Your task to perform on an android device: open app "The Home Depot" (install if not already installed) Image 0: 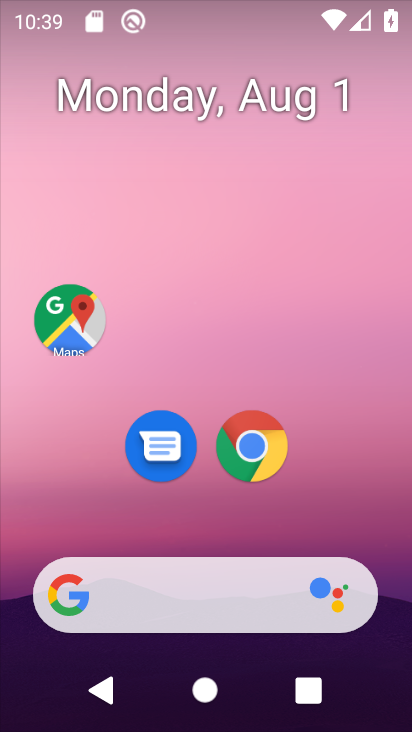
Step 0: drag from (240, 538) to (183, 121)
Your task to perform on an android device: open app "The Home Depot" (install if not already installed) Image 1: 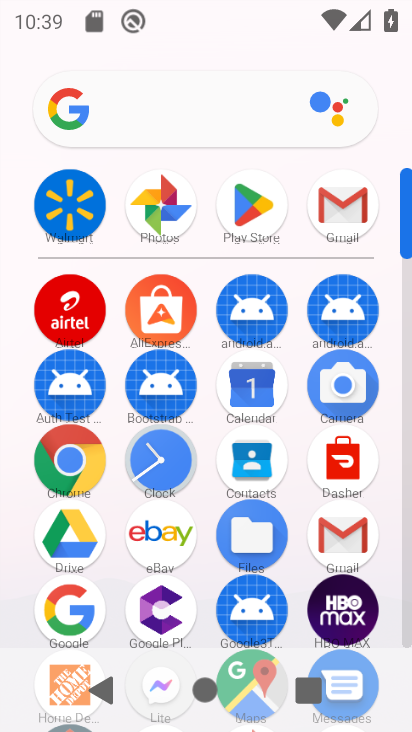
Step 1: click (236, 213)
Your task to perform on an android device: open app "The Home Depot" (install if not already installed) Image 2: 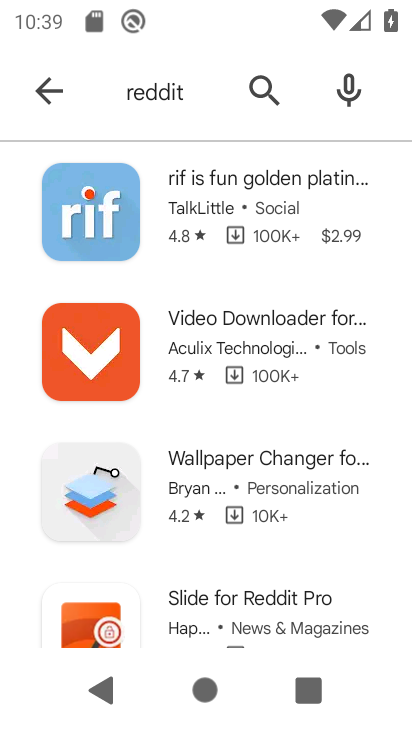
Step 2: click (259, 100)
Your task to perform on an android device: open app "The Home Depot" (install if not already installed) Image 3: 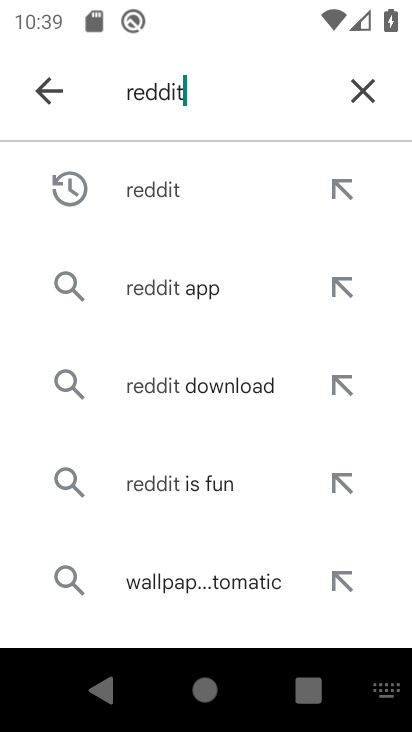
Step 3: click (354, 79)
Your task to perform on an android device: open app "The Home Depot" (install if not already installed) Image 4: 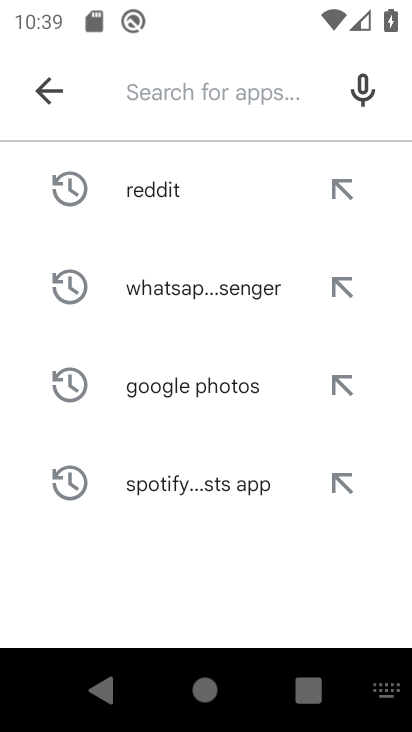
Step 4: type "The Home Depot"
Your task to perform on an android device: open app "The Home Depot" (install if not already installed) Image 5: 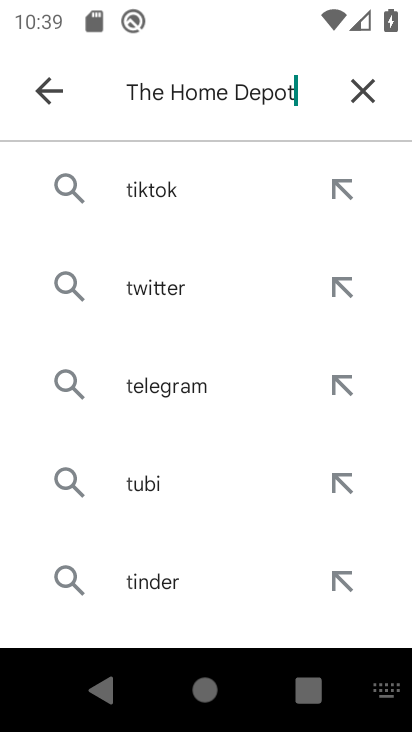
Step 5: type ""
Your task to perform on an android device: open app "The Home Depot" (install if not already installed) Image 6: 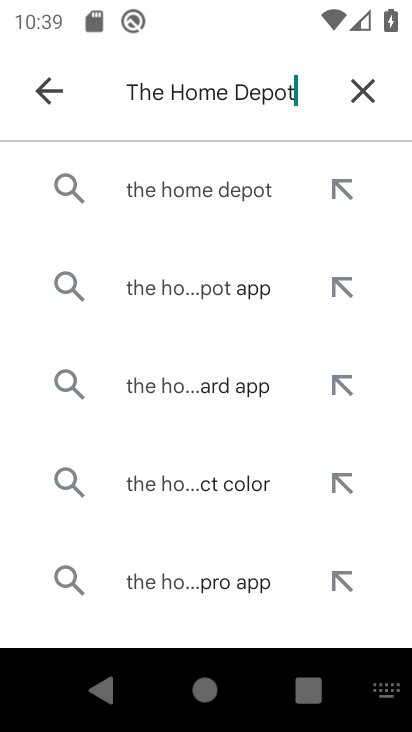
Step 6: click (241, 191)
Your task to perform on an android device: open app "The Home Depot" (install if not already installed) Image 7: 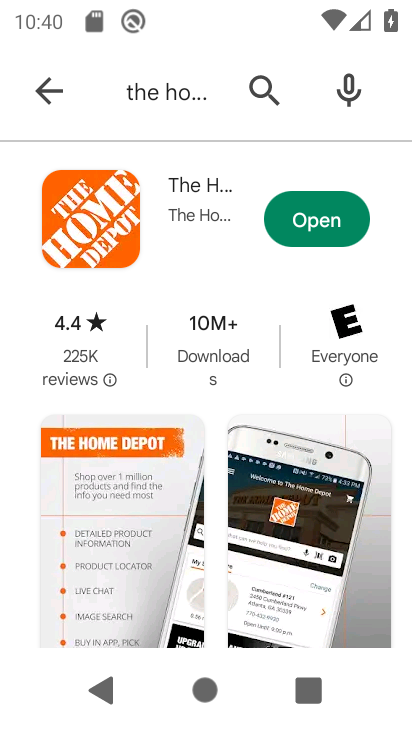
Step 7: click (329, 228)
Your task to perform on an android device: open app "The Home Depot" (install if not already installed) Image 8: 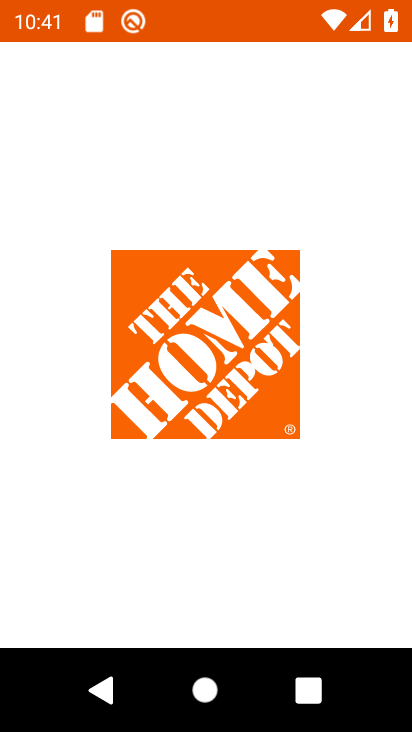
Step 8: task complete